Your task to perform on an android device: Open Google Chrome Image 0: 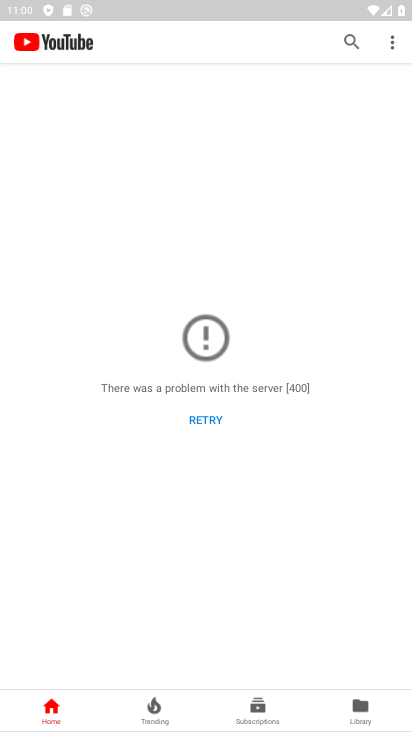
Step 0: press home button
Your task to perform on an android device: Open Google Chrome Image 1: 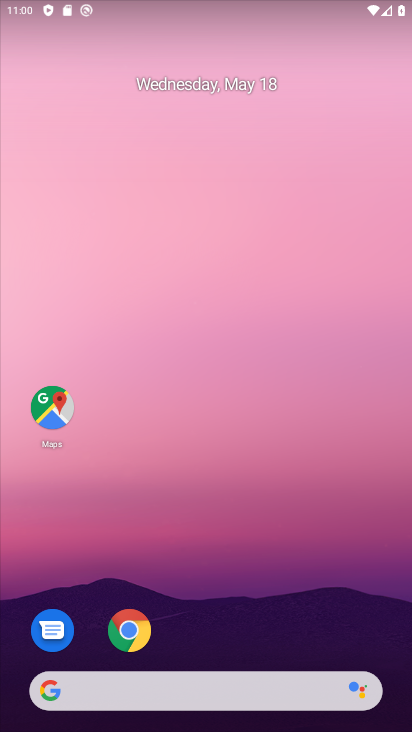
Step 1: click (127, 625)
Your task to perform on an android device: Open Google Chrome Image 2: 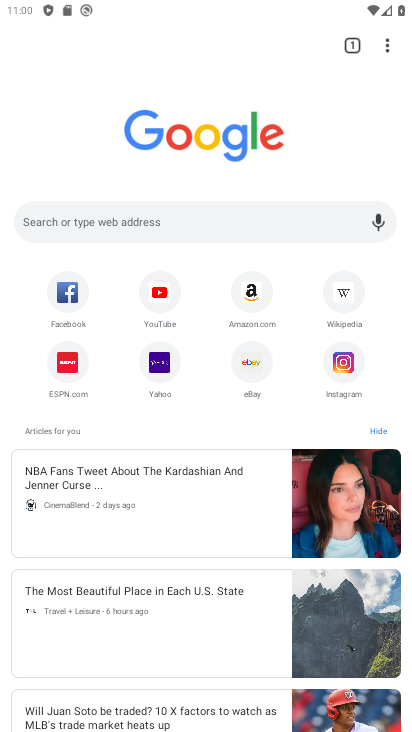
Step 2: task complete